Your task to perform on an android device: Go to Android settings Image 0: 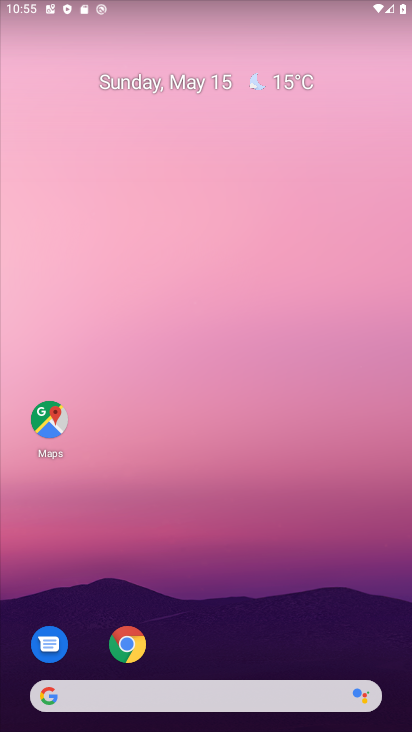
Step 0: drag from (246, 641) to (201, 79)
Your task to perform on an android device: Go to Android settings Image 1: 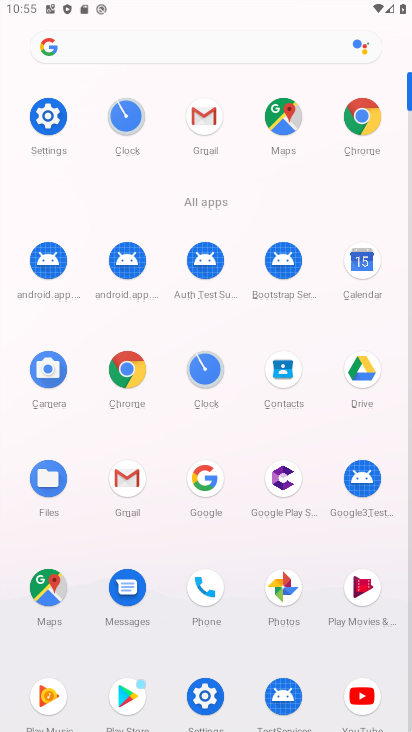
Step 1: click (53, 112)
Your task to perform on an android device: Go to Android settings Image 2: 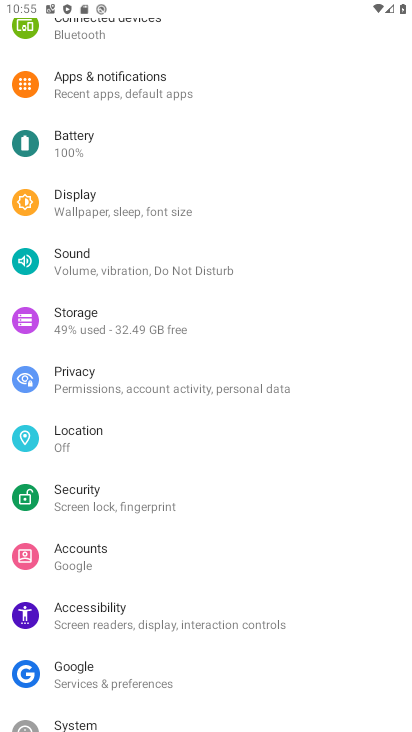
Step 2: drag from (166, 666) to (219, 214)
Your task to perform on an android device: Go to Android settings Image 3: 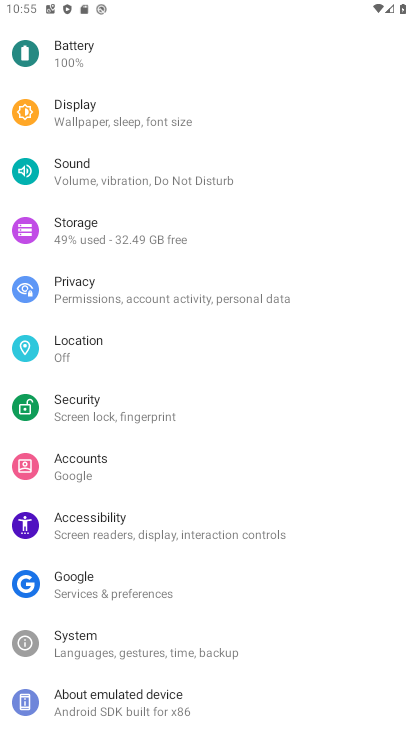
Step 3: drag from (153, 636) to (187, 290)
Your task to perform on an android device: Go to Android settings Image 4: 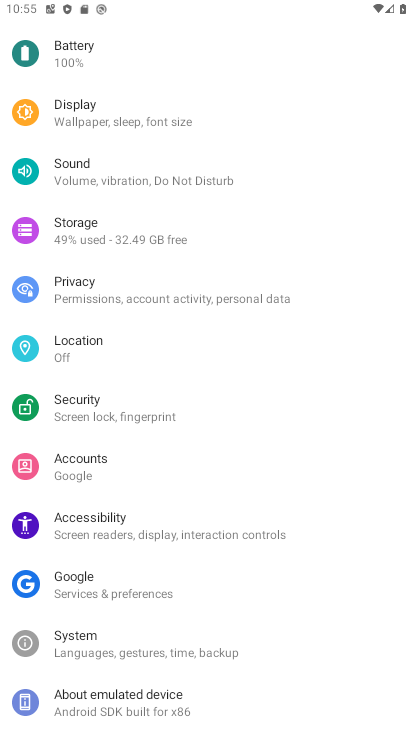
Step 4: click (143, 689)
Your task to perform on an android device: Go to Android settings Image 5: 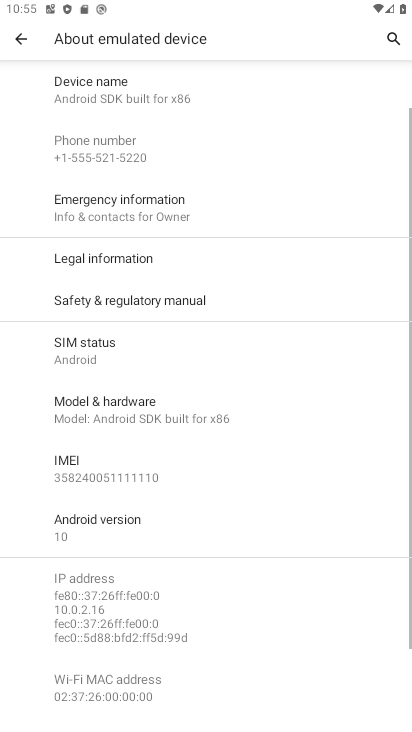
Step 5: drag from (194, 132) to (200, 524)
Your task to perform on an android device: Go to Android settings Image 6: 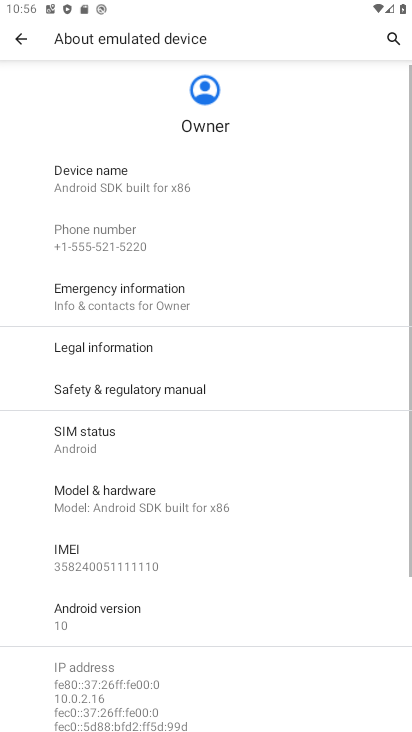
Step 6: click (161, 611)
Your task to perform on an android device: Go to Android settings Image 7: 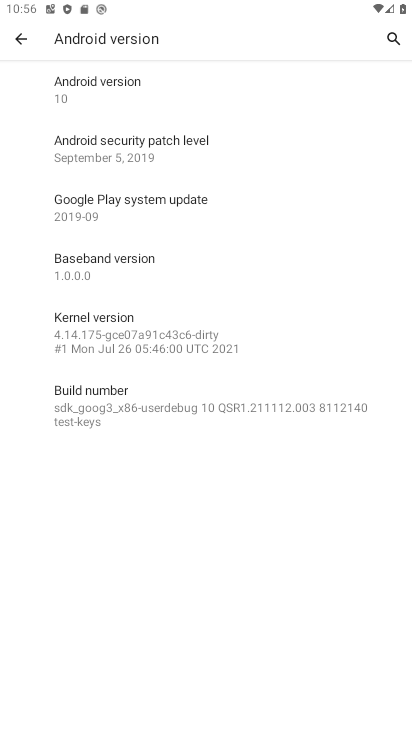
Step 7: task complete